Your task to perform on an android device: Set the phone to "Do not disturb". Image 0: 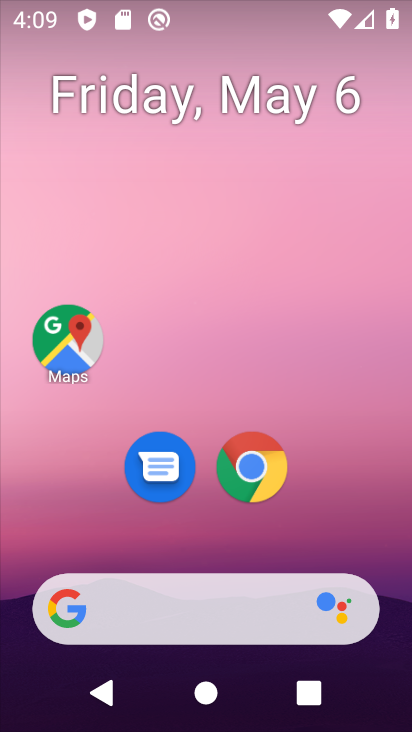
Step 0: drag from (309, 547) to (285, 52)
Your task to perform on an android device: Set the phone to "Do not disturb". Image 1: 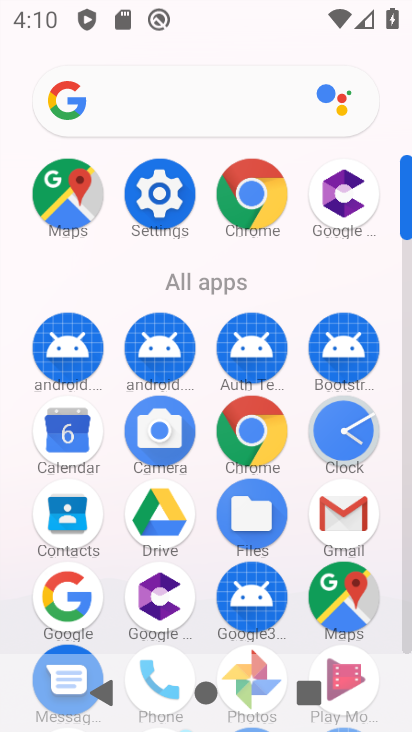
Step 1: click (172, 194)
Your task to perform on an android device: Set the phone to "Do not disturb". Image 2: 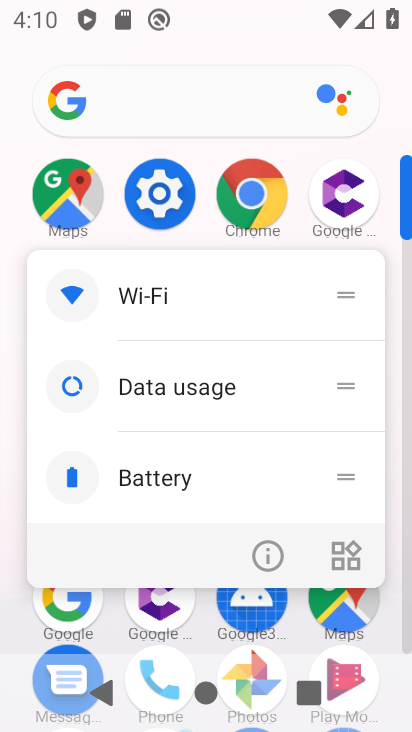
Step 2: click (103, 216)
Your task to perform on an android device: Set the phone to "Do not disturb". Image 3: 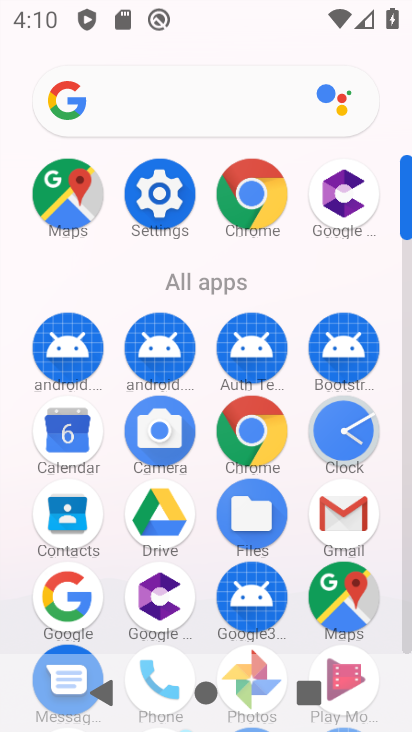
Step 3: click (143, 210)
Your task to perform on an android device: Set the phone to "Do not disturb". Image 4: 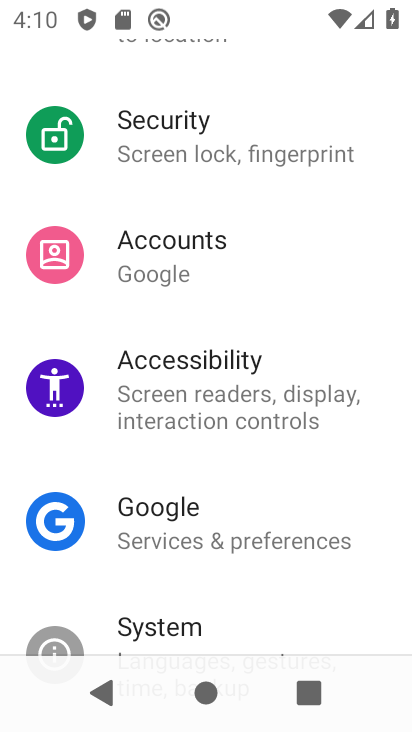
Step 4: drag from (220, 341) to (221, 624)
Your task to perform on an android device: Set the phone to "Do not disturb". Image 5: 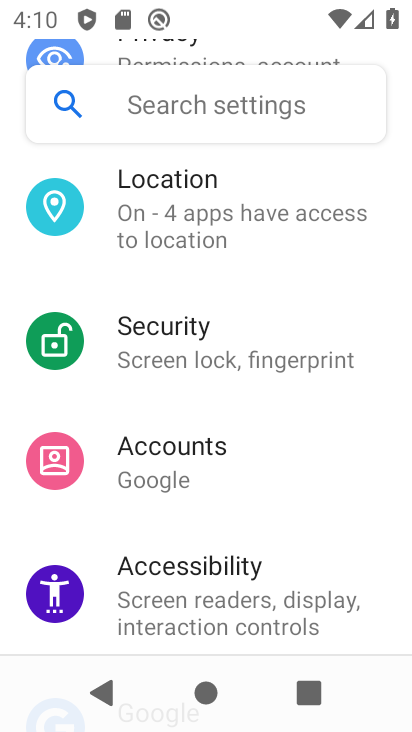
Step 5: drag from (313, 295) to (281, 678)
Your task to perform on an android device: Set the phone to "Do not disturb". Image 6: 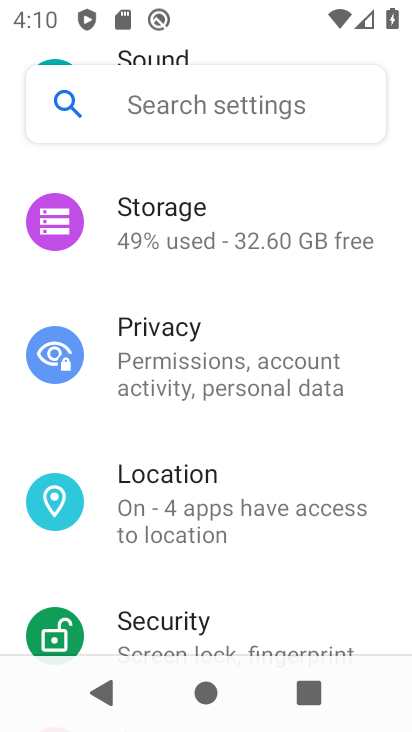
Step 6: drag from (180, 289) to (173, 535)
Your task to perform on an android device: Set the phone to "Do not disturb". Image 7: 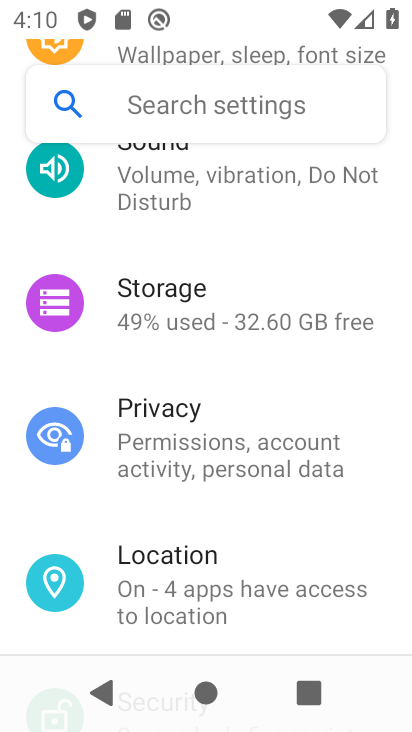
Step 7: drag from (199, 239) to (204, 446)
Your task to perform on an android device: Set the phone to "Do not disturb". Image 8: 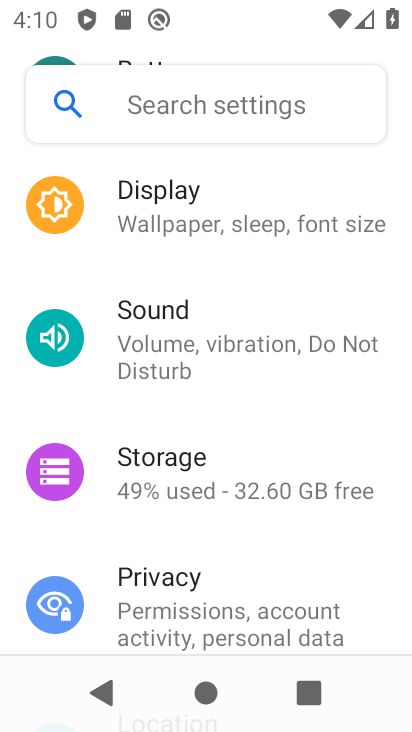
Step 8: click (152, 349)
Your task to perform on an android device: Set the phone to "Do not disturb". Image 9: 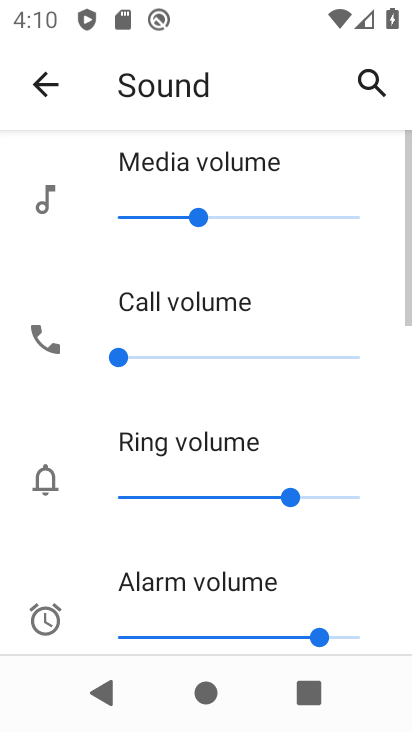
Step 9: drag from (155, 598) to (263, 198)
Your task to perform on an android device: Set the phone to "Do not disturb". Image 10: 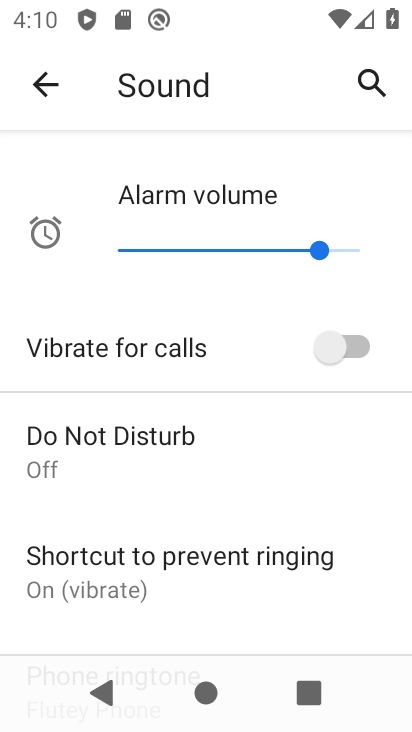
Step 10: click (149, 445)
Your task to perform on an android device: Set the phone to "Do not disturb". Image 11: 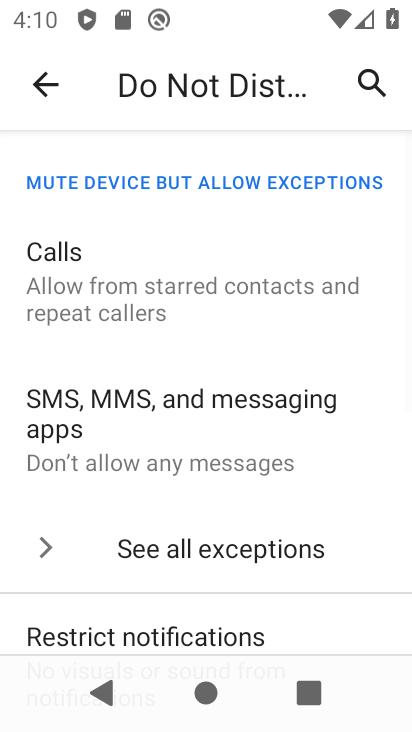
Step 11: drag from (187, 558) to (220, 280)
Your task to perform on an android device: Set the phone to "Do not disturb". Image 12: 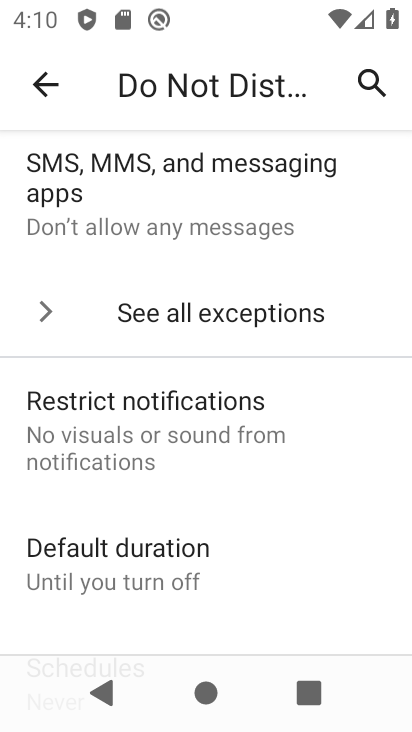
Step 12: drag from (223, 527) to (225, 214)
Your task to perform on an android device: Set the phone to "Do not disturb". Image 13: 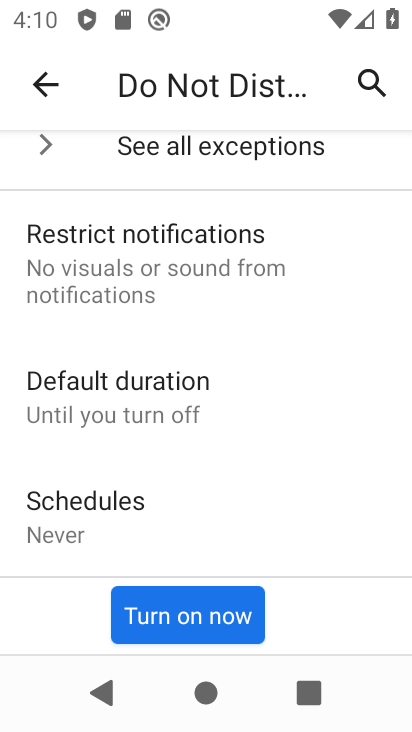
Step 13: click (189, 604)
Your task to perform on an android device: Set the phone to "Do not disturb". Image 14: 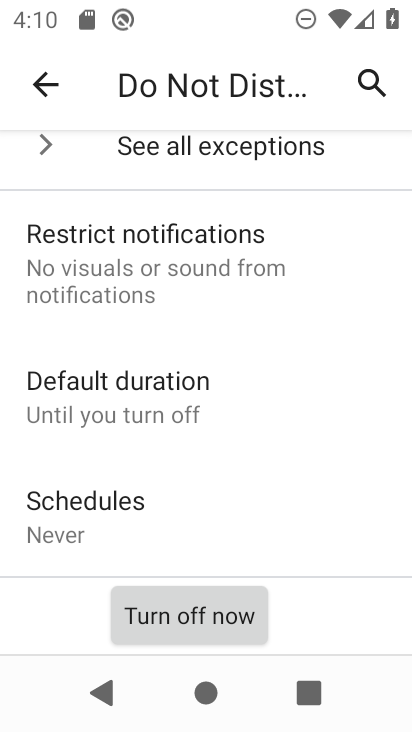
Step 14: task complete